Your task to perform on an android device: find photos in the google photos app Image 0: 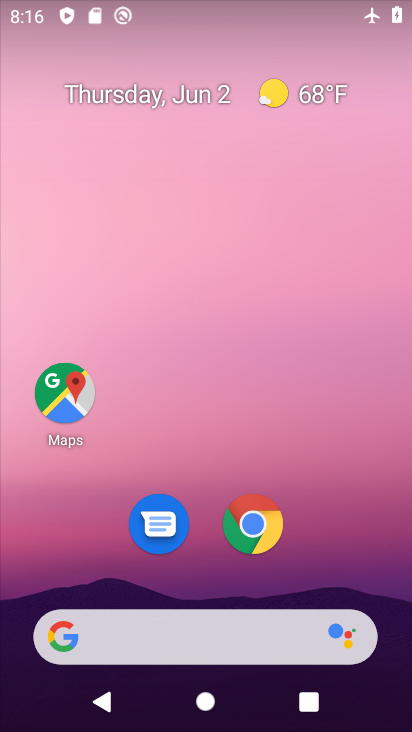
Step 0: drag from (321, 514) to (288, 5)
Your task to perform on an android device: find photos in the google photos app Image 1: 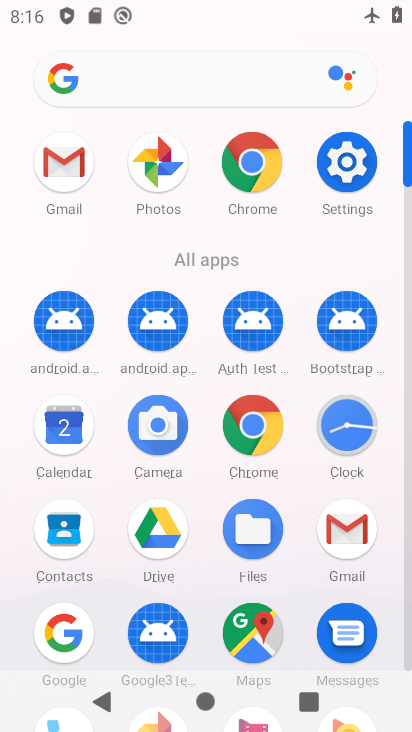
Step 1: click (167, 162)
Your task to perform on an android device: find photos in the google photos app Image 2: 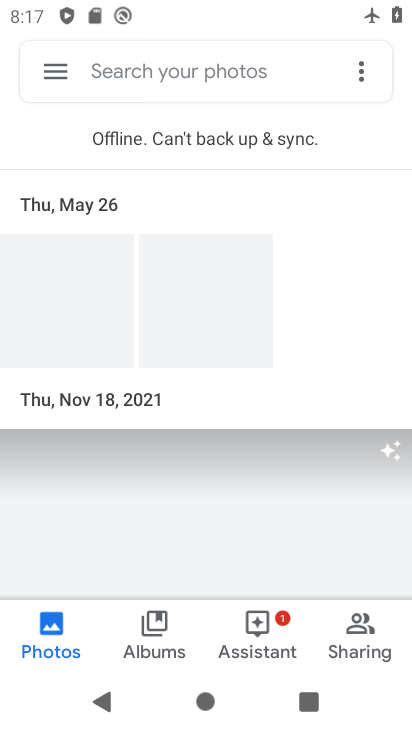
Step 2: task complete